Your task to perform on an android device: turn off wifi Image 0: 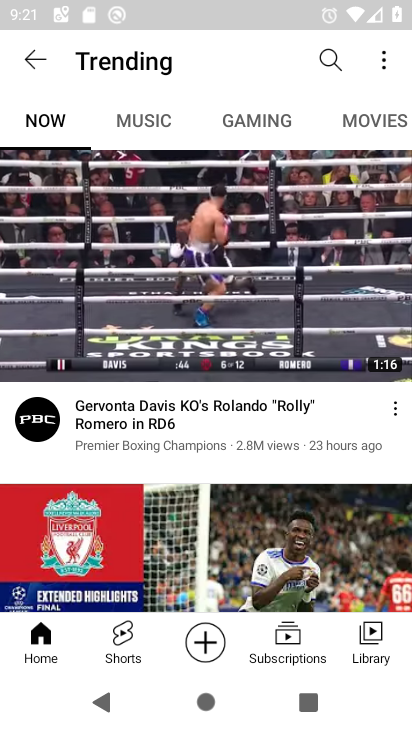
Step 0: press home button
Your task to perform on an android device: turn off wifi Image 1: 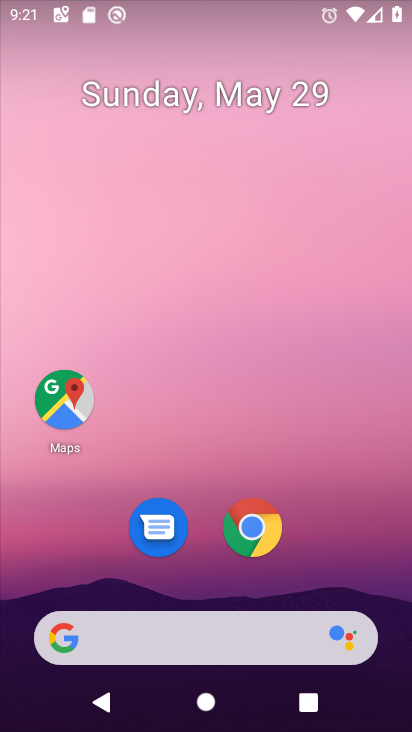
Step 1: drag from (204, 582) to (202, 52)
Your task to perform on an android device: turn off wifi Image 2: 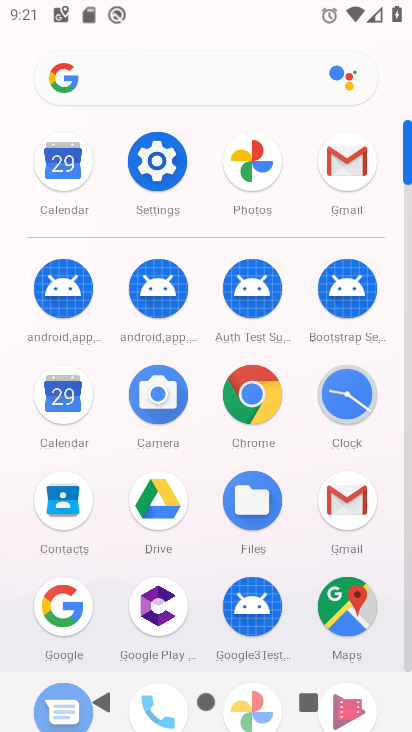
Step 2: drag from (207, 9) to (201, 505)
Your task to perform on an android device: turn off wifi Image 3: 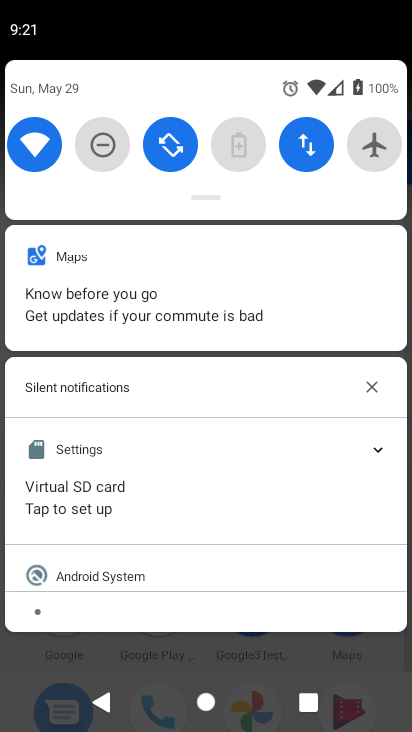
Step 3: click (33, 142)
Your task to perform on an android device: turn off wifi Image 4: 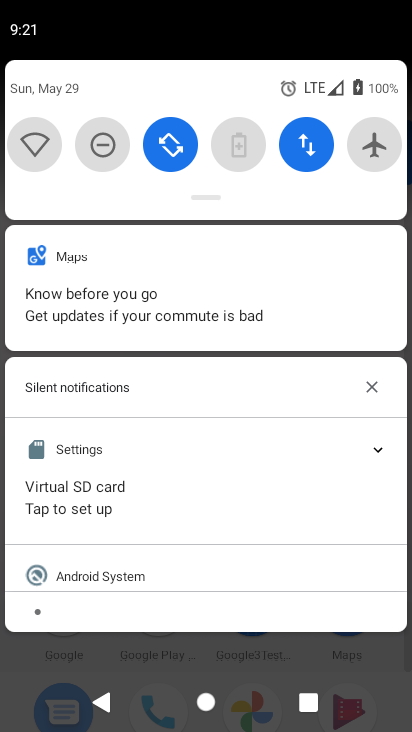
Step 4: task complete